Your task to perform on an android device: stop showing notifications on the lock screen Image 0: 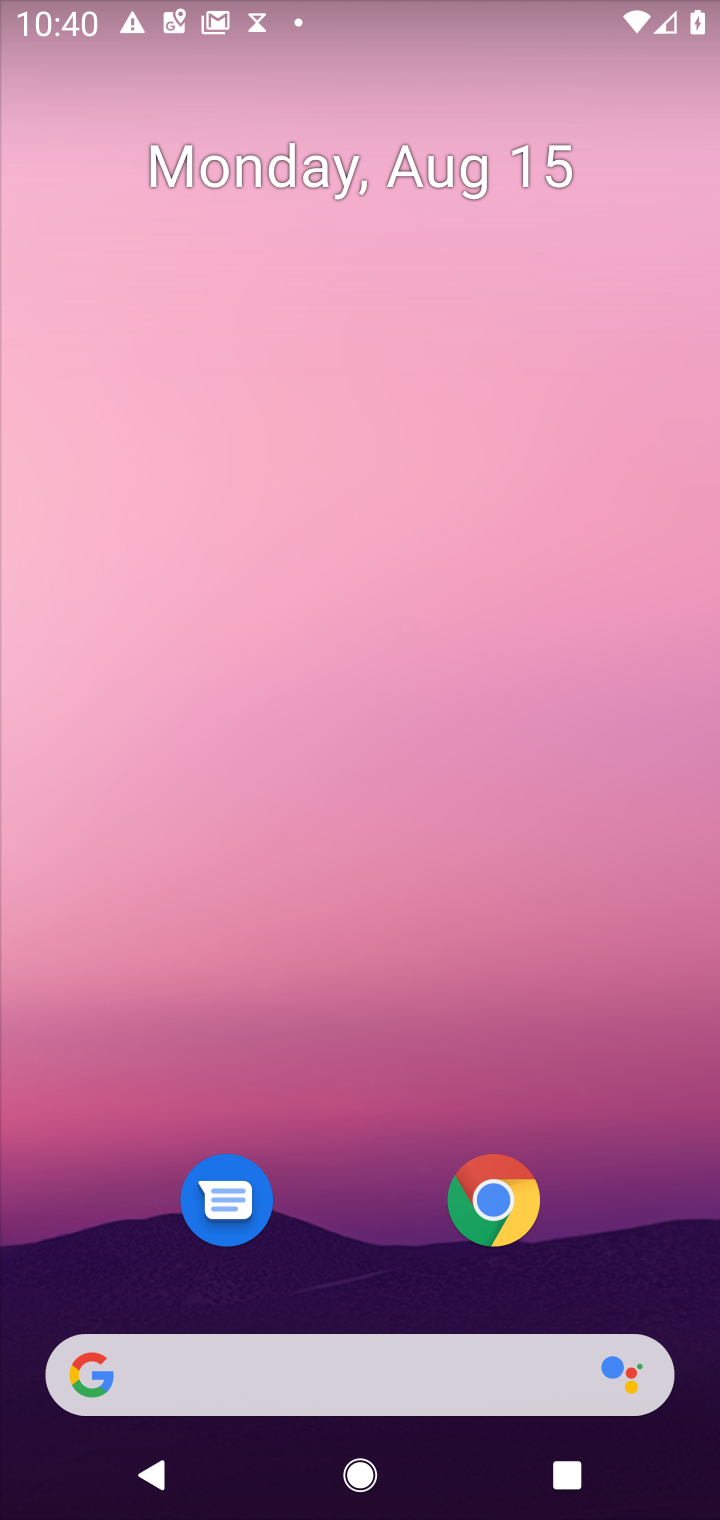
Step 0: drag from (365, 974) to (365, 270)
Your task to perform on an android device: stop showing notifications on the lock screen Image 1: 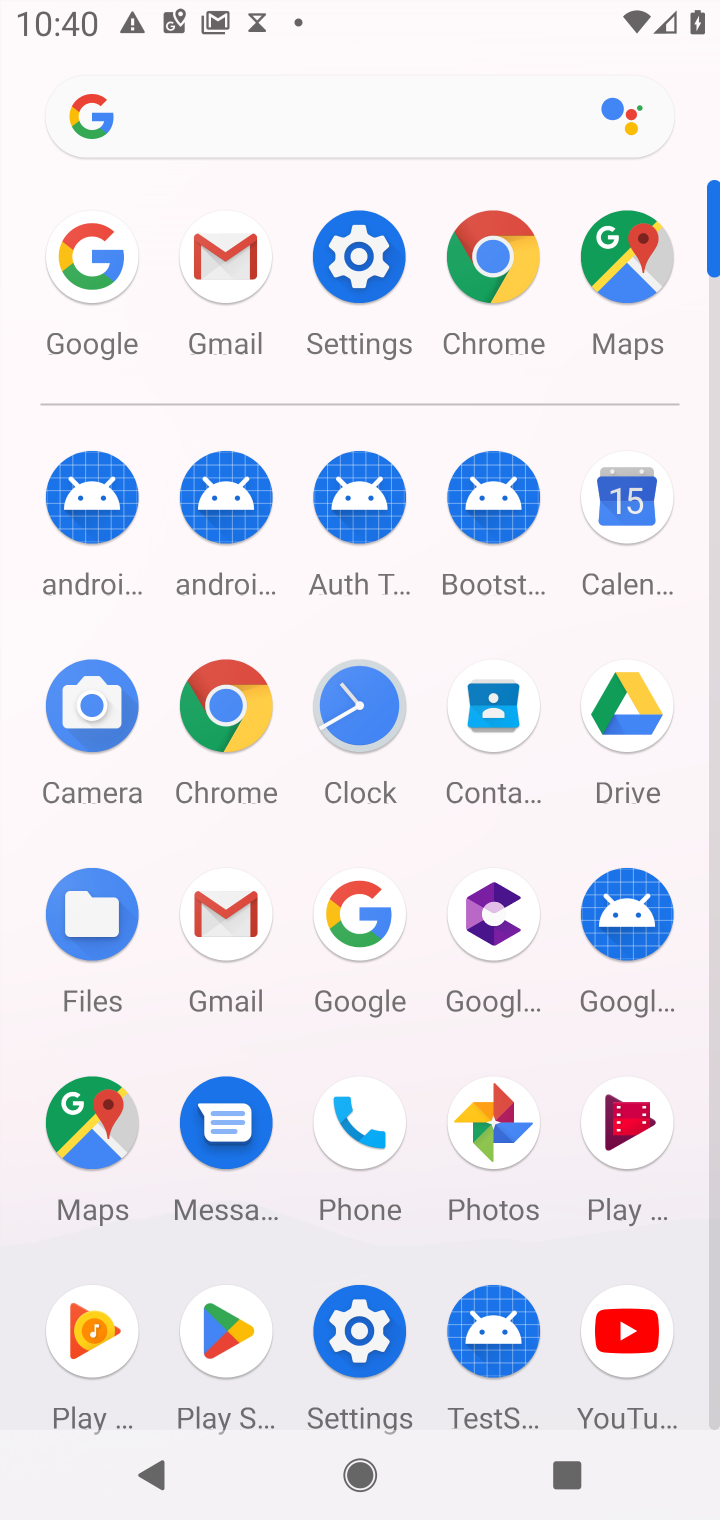
Step 1: click (360, 275)
Your task to perform on an android device: stop showing notifications on the lock screen Image 2: 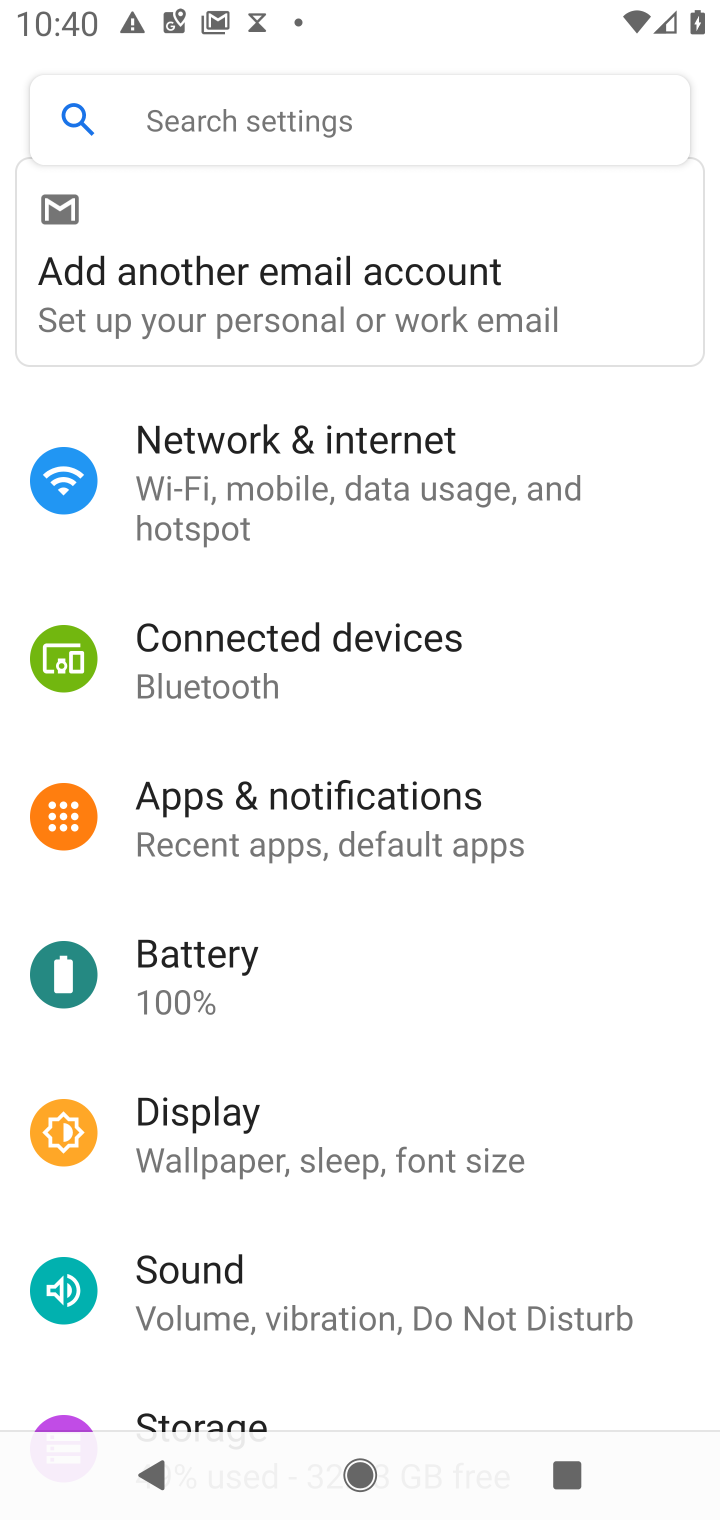
Step 2: click (446, 809)
Your task to perform on an android device: stop showing notifications on the lock screen Image 3: 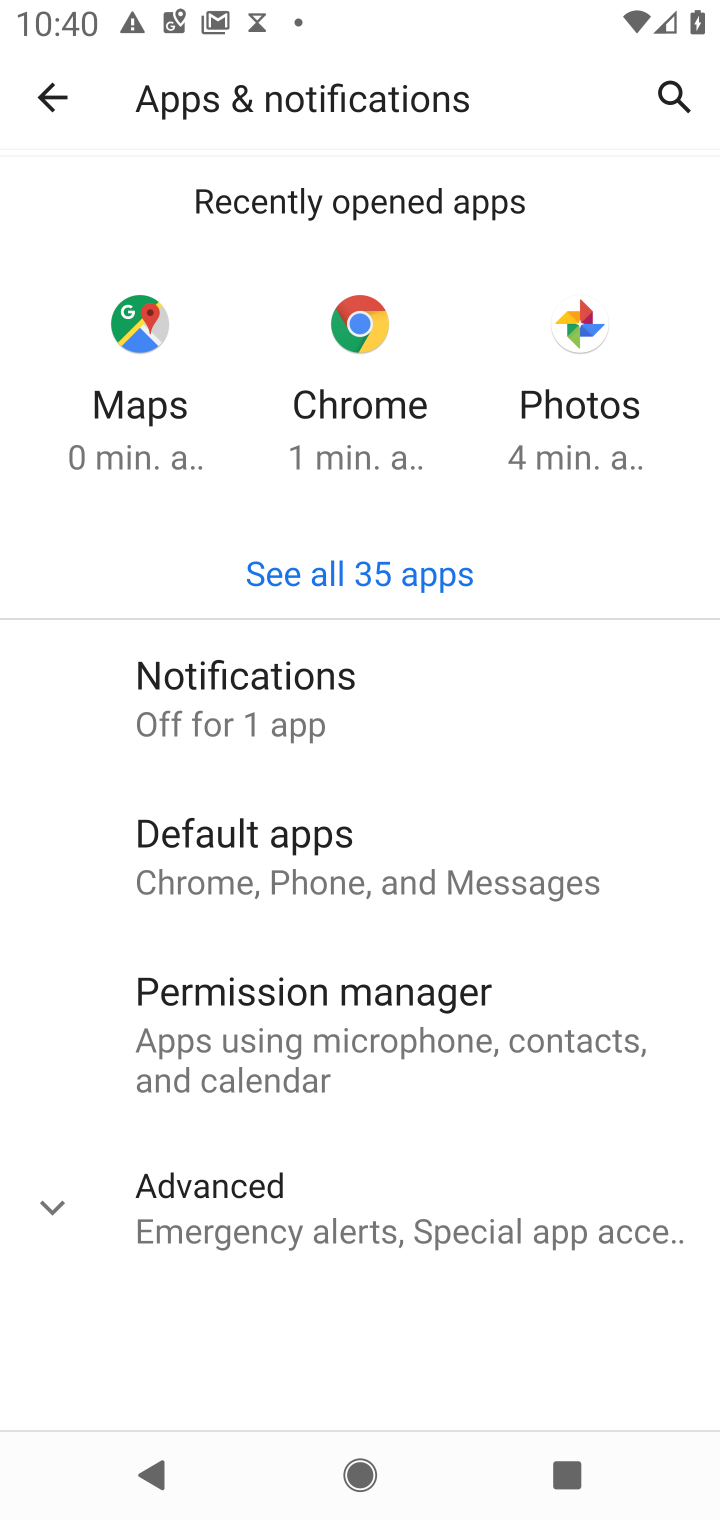
Step 3: click (316, 688)
Your task to perform on an android device: stop showing notifications on the lock screen Image 4: 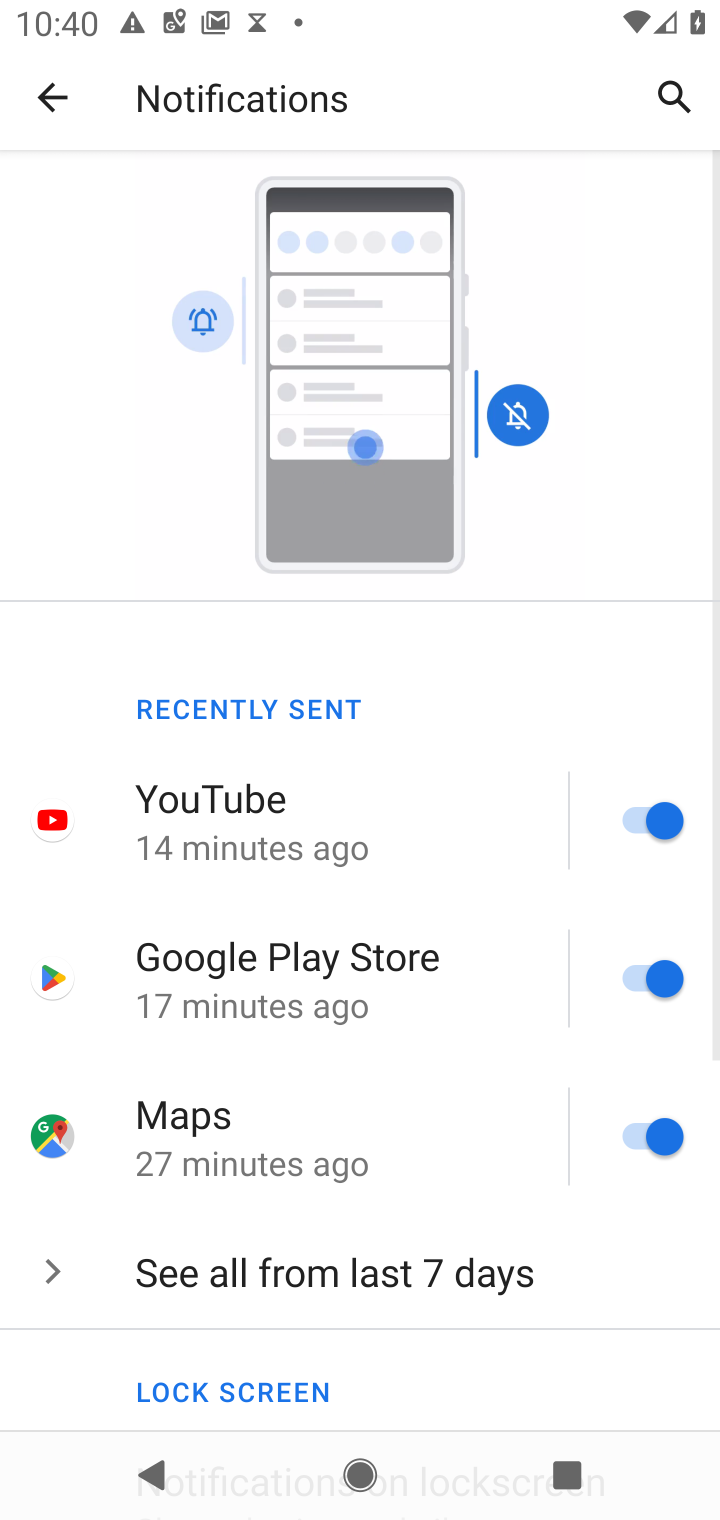
Step 4: drag from (373, 925) to (422, 516)
Your task to perform on an android device: stop showing notifications on the lock screen Image 5: 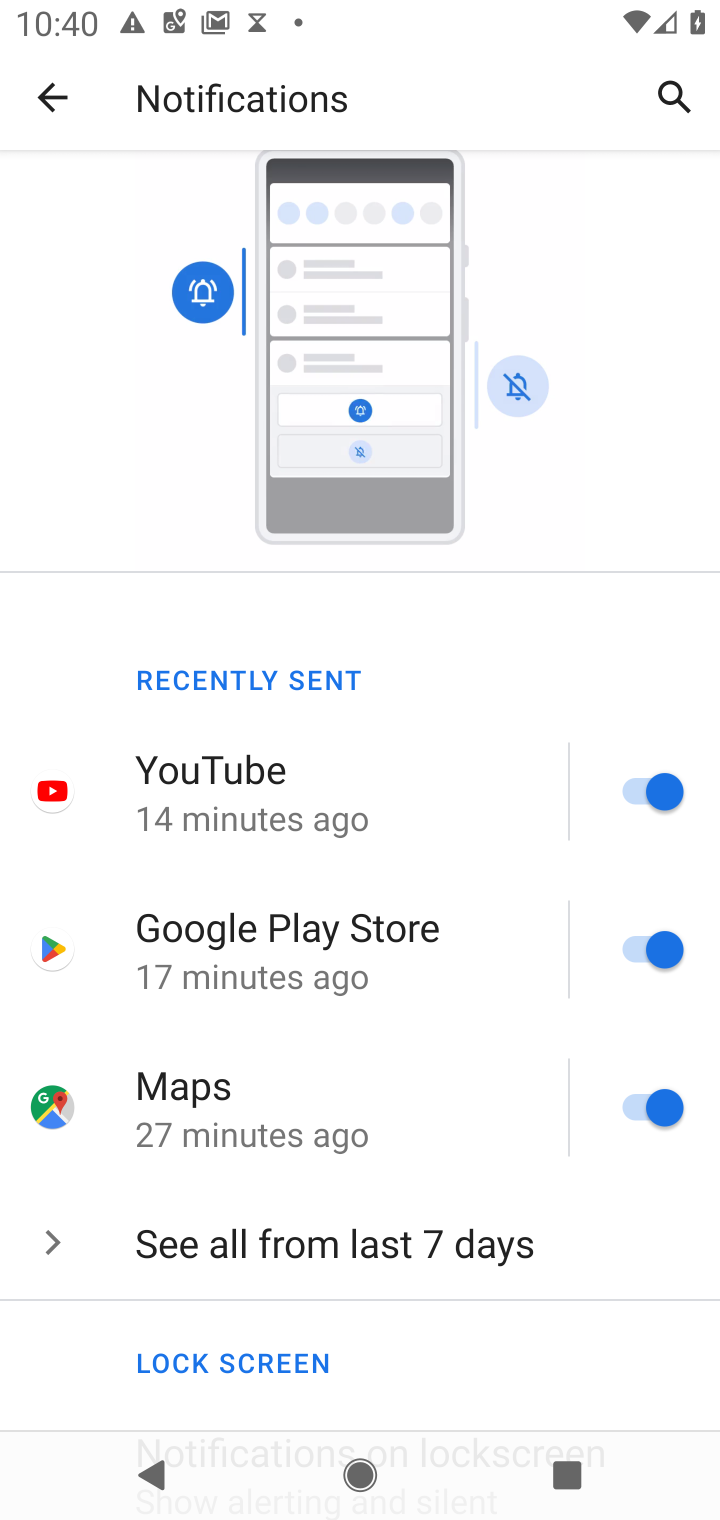
Step 5: drag from (526, 1093) to (492, 406)
Your task to perform on an android device: stop showing notifications on the lock screen Image 6: 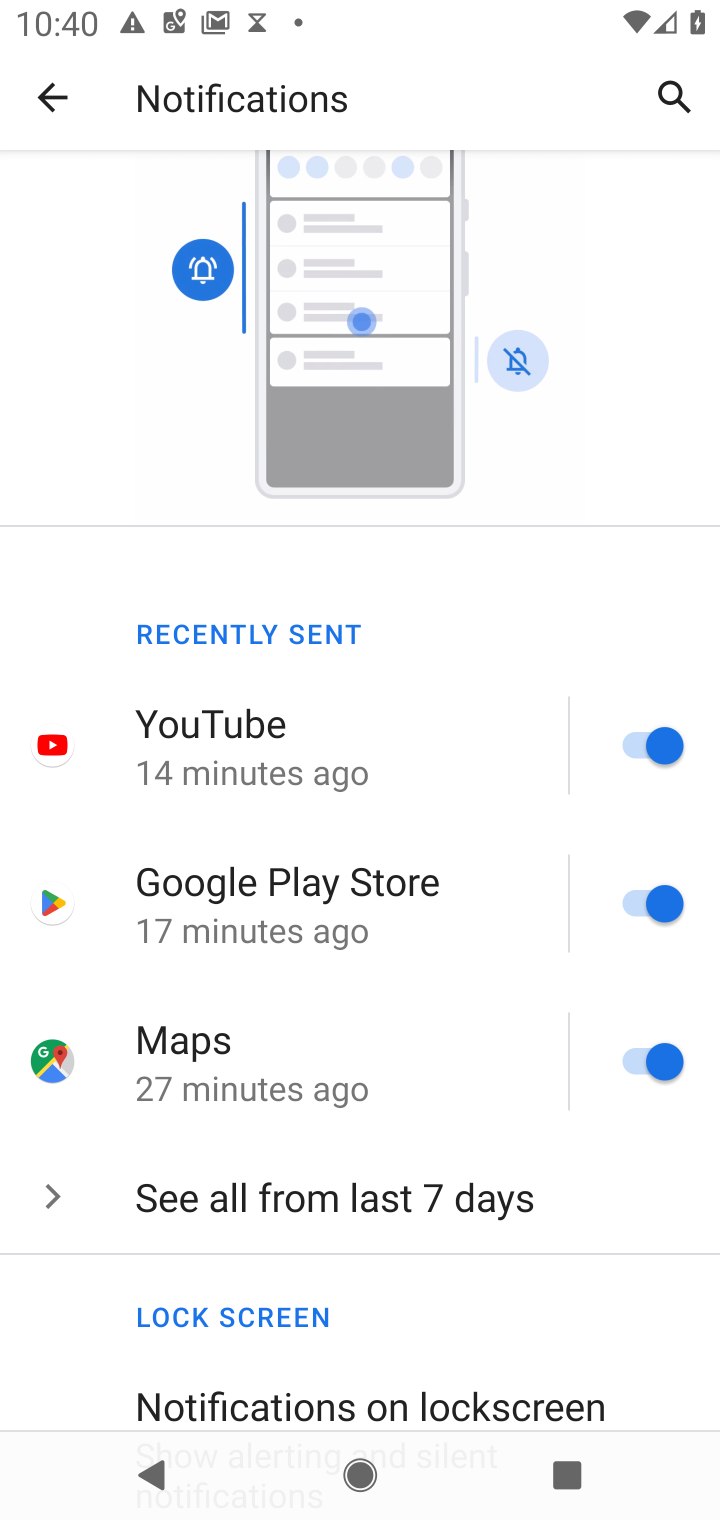
Step 6: drag from (544, 1358) to (500, 650)
Your task to perform on an android device: stop showing notifications on the lock screen Image 7: 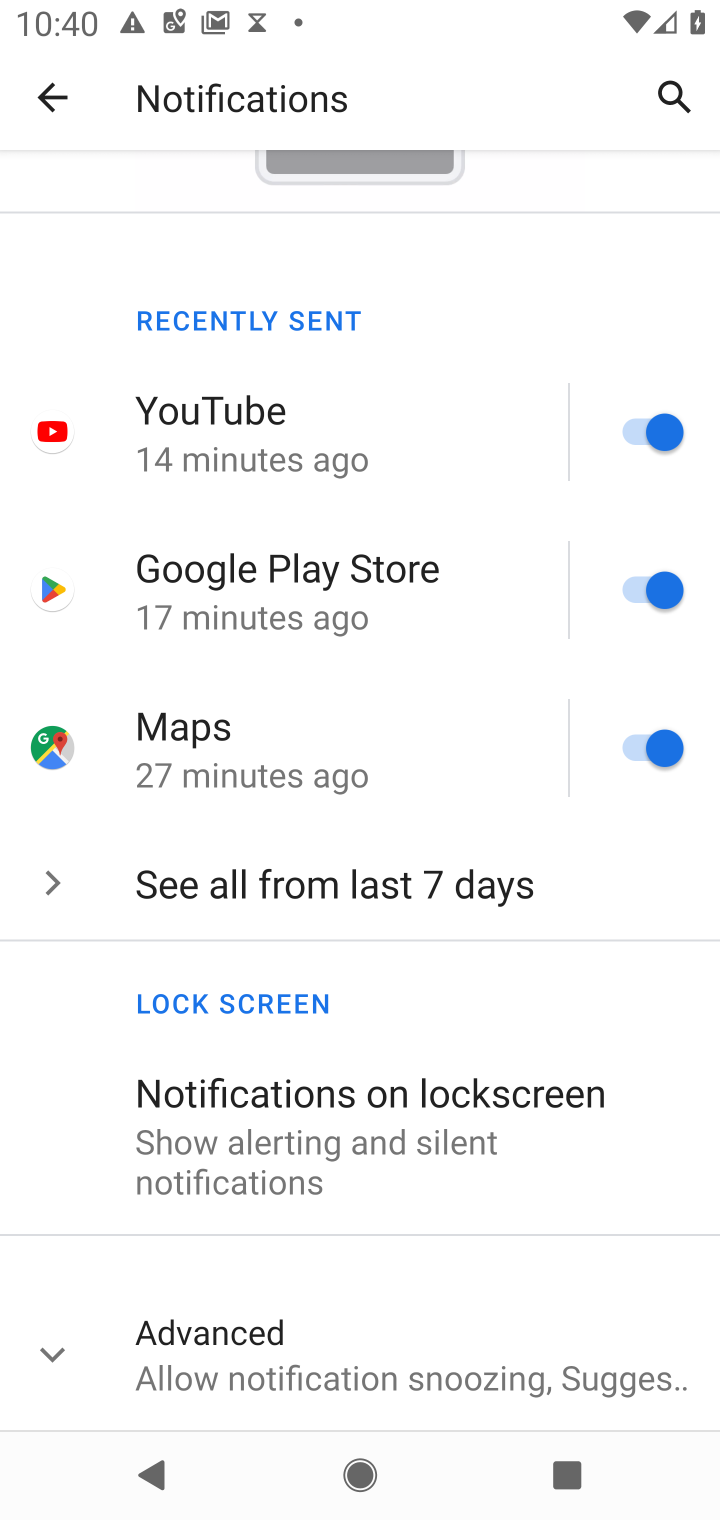
Step 7: click (426, 1146)
Your task to perform on an android device: stop showing notifications on the lock screen Image 8: 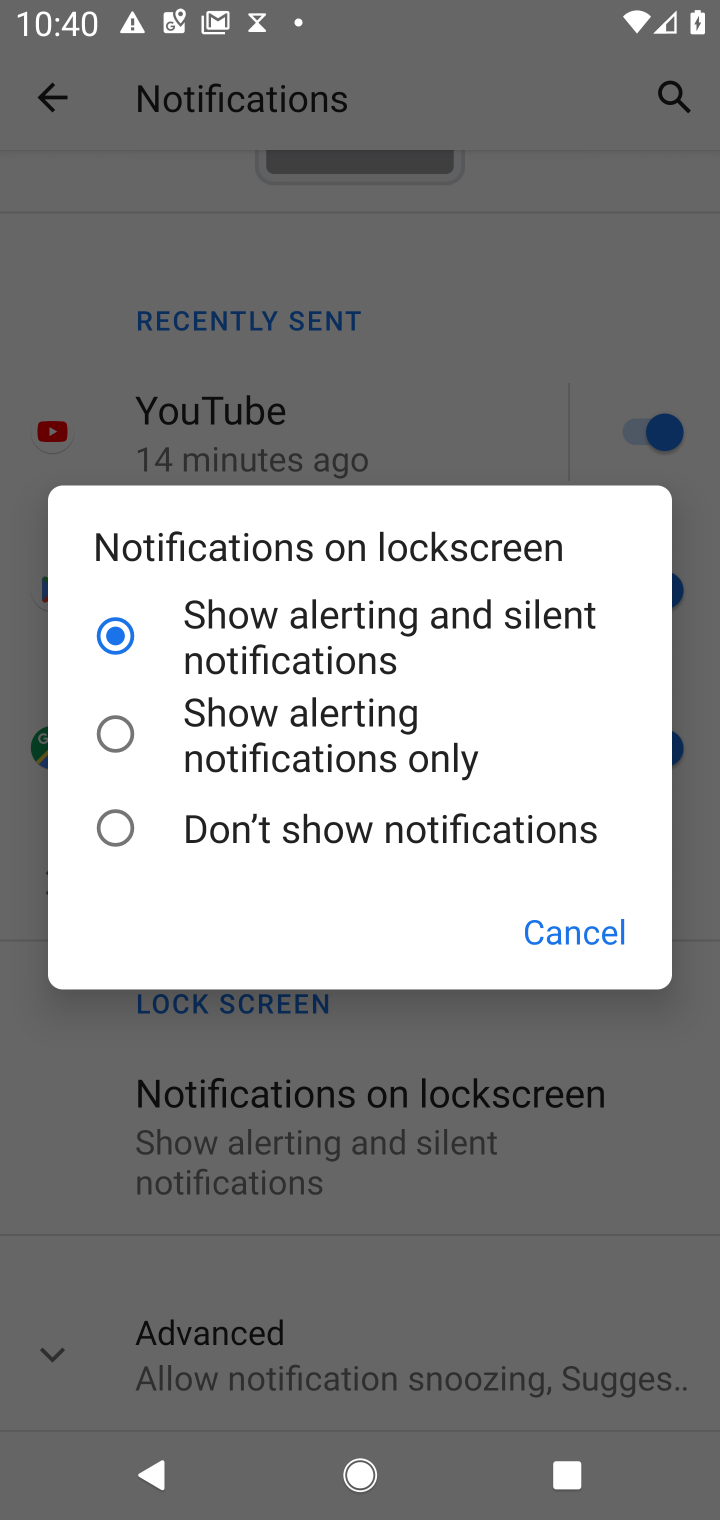
Step 8: click (261, 838)
Your task to perform on an android device: stop showing notifications on the lock screen Image 9: 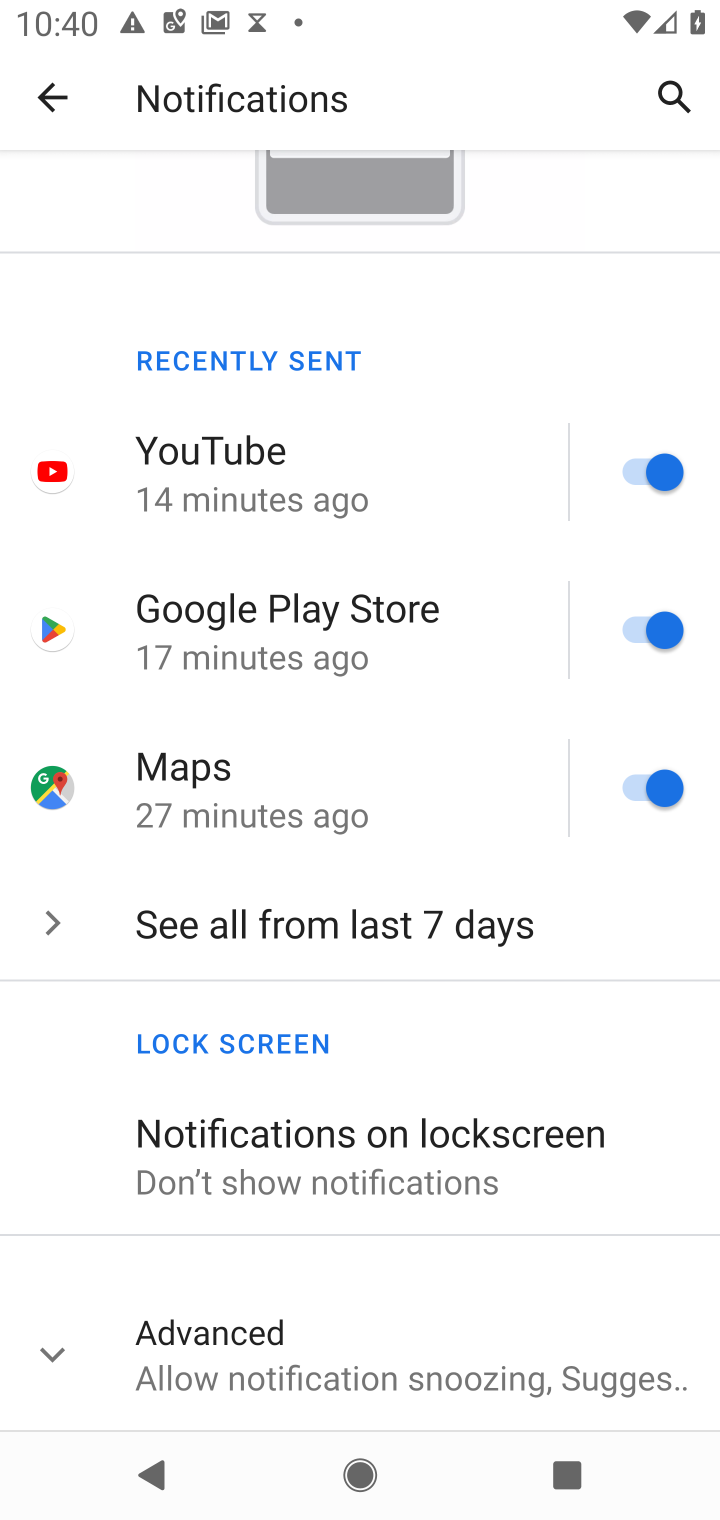
Step 9: task complete